Your task to perform on an android device: Open ESPN.com Image 0: 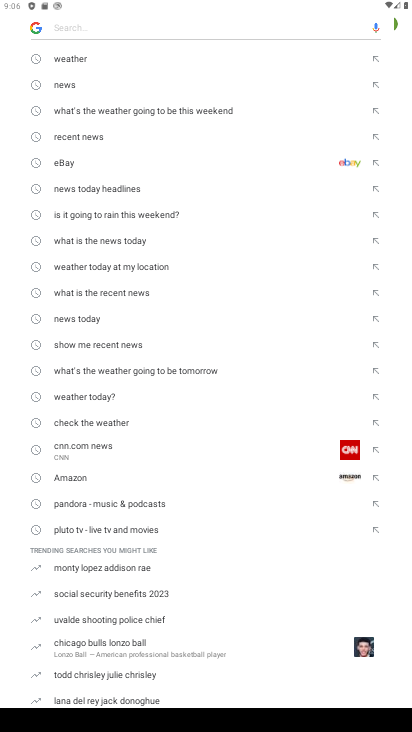
Step 0: press home button
Your task to perform on an android device: Open ESPN.com Image 1: 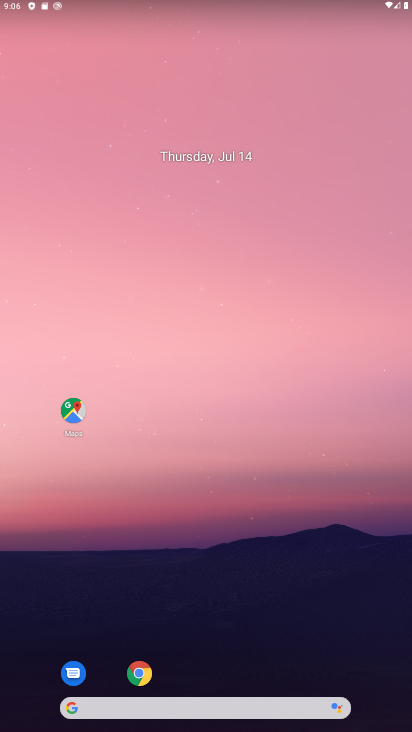
Step 1: click (144, 677)
Your task to perform on an android device: Open ESPN.com Image 2: 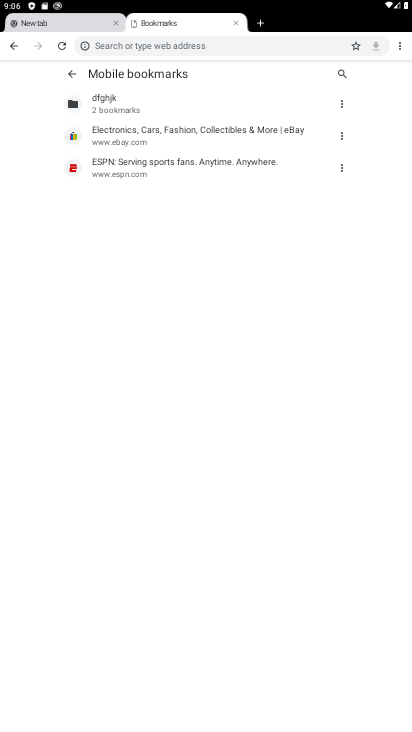
Step 2: click (54, 24)
Your task to perform on an android device: Open ESPN.com Image 3: 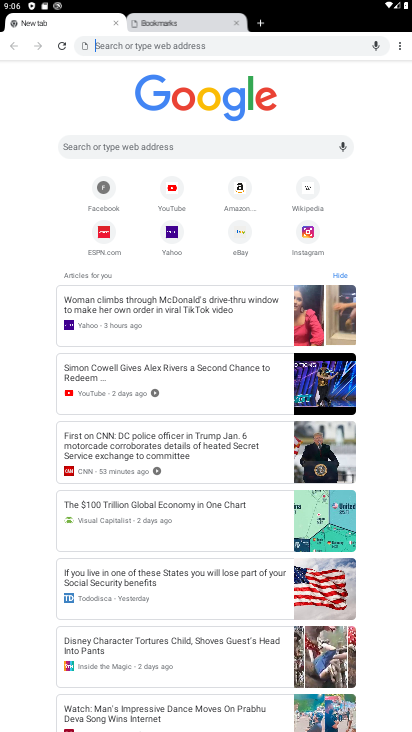
Step 3: click (104, 230)
Your task to perform on an android device: Open ESPN.com Image 4: 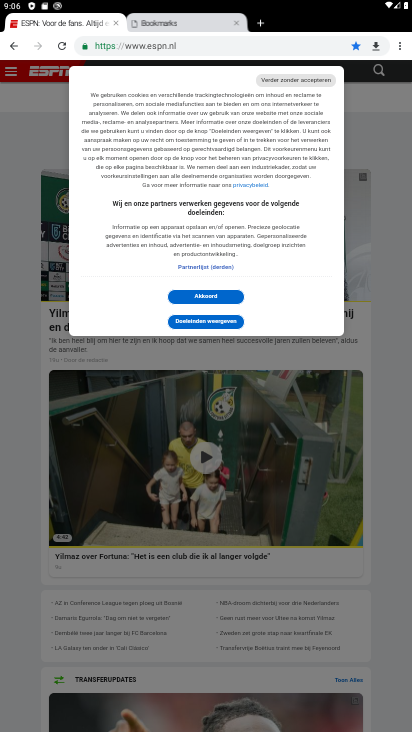
Step 4: task complete